Your task to perform on an android device: Open Youtube and go to "Your channel" Image 0: 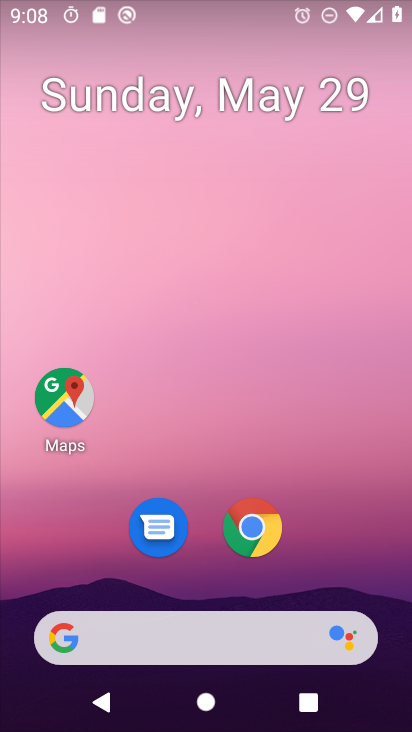
Step 0: drag from (392, 652) to (260, 53)
Your task to perform on an android device: Open Youtube and go to "Your channel" Image 1: 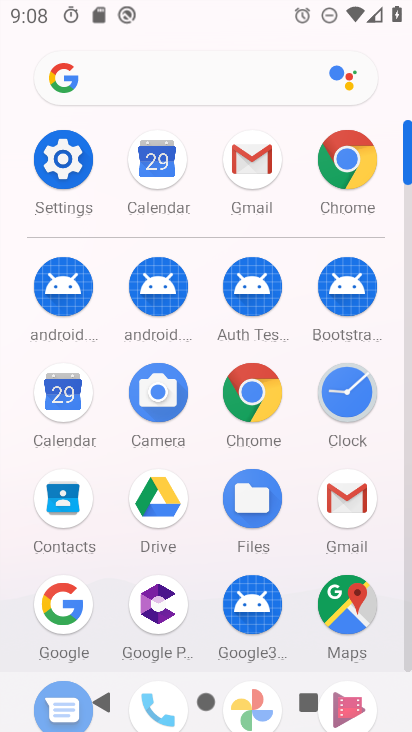
Step 1: drag from (304, 647) to (269, 172)
Your task to perform on an android device: Open Youtube and go to "Your channel" Image 2: 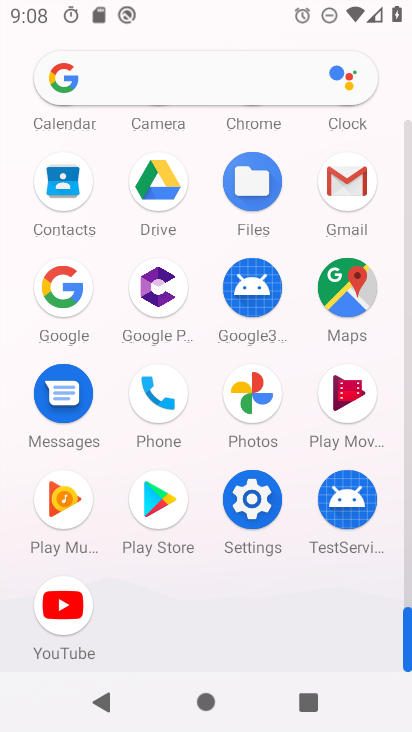
Step 2: click (78, 620)
Your task to perform on an android device: Open Youtube and go to "Your channel" Image 3: 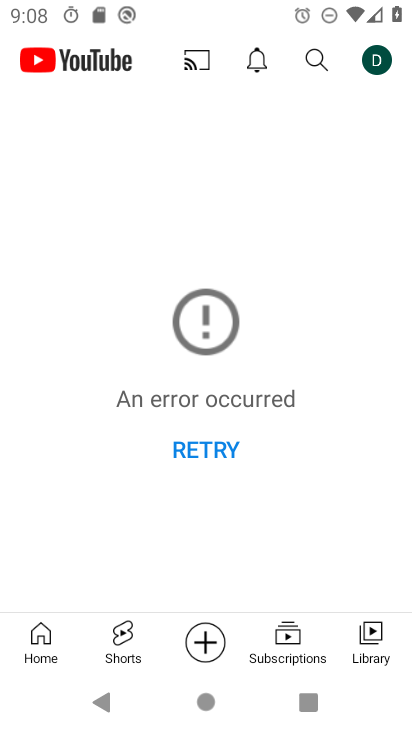
Step 3: click (211, 466)
Your task to perform on an android device: Open Youtube and go to "Your channel" Image 4: 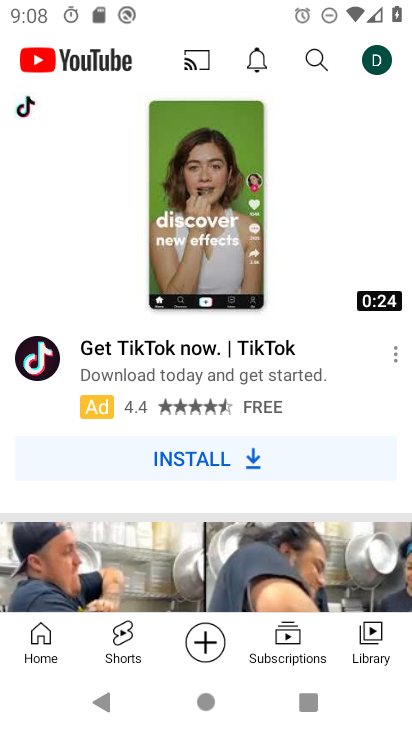
Step 4: click (382, 62)
Your task to perform on an android device: Open Youtube and go to "Your channel" Image 5: 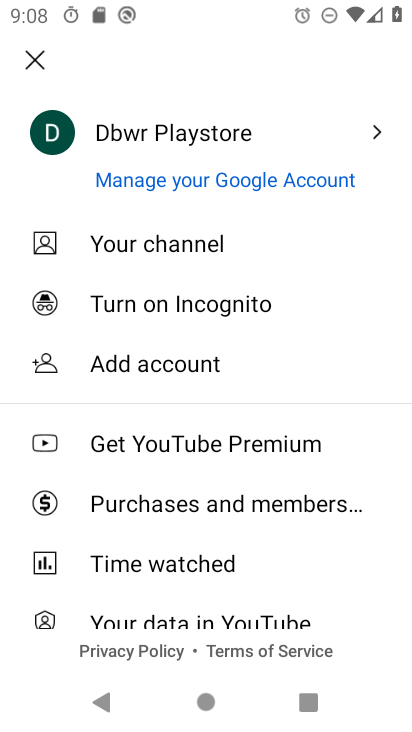
Step 5: click (170, 247)
Your task to perform on an android device: Open Youtube and go to "Your channel" Image 6: 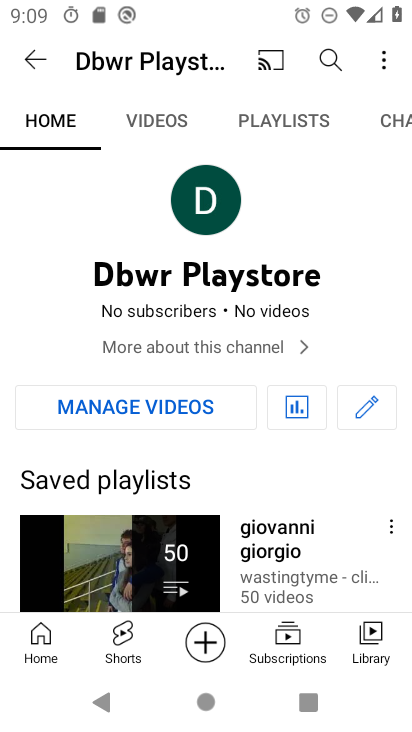
Step 6: task complete